Your task to perform on an android device: turn off picture-in-picture Image 0: 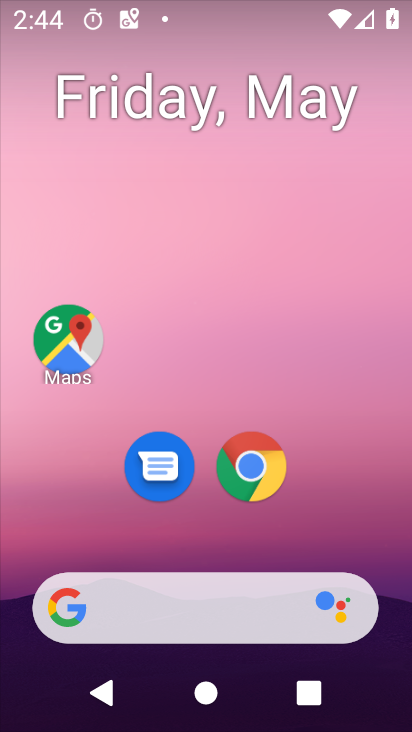
Step 0: click (252, 470)
Your task to perform on an android device: turn off picture-in-picture Image 1: 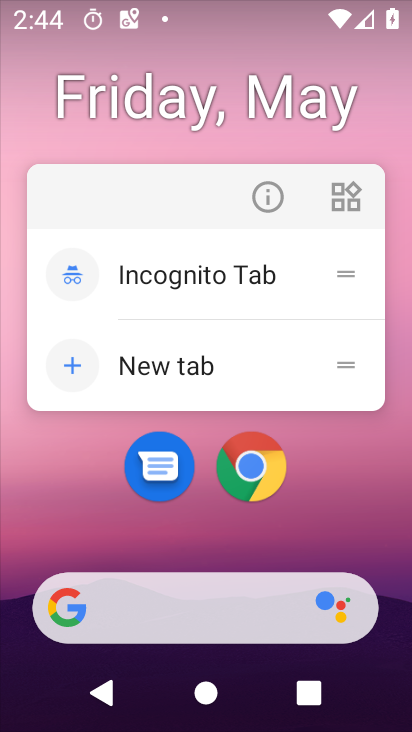
Step 1: click (275, 198)
Your task to perform on an android device: turn off picture-in-picture Image 2: 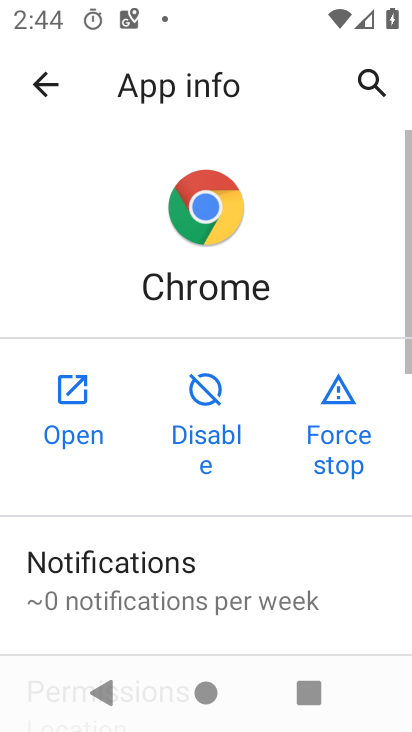
Step 2: drag from (183, 547) to (276, 99)
Your task to perform on an android device: turn off picture-in-picture Image 3: 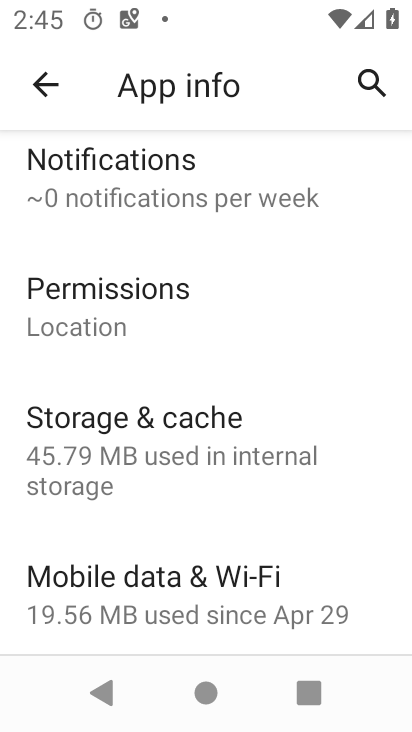
Step 3: drag from (236, 614) to (303, 173)
Your task to perform on an android device: turn off picture-in-picture Image 4: 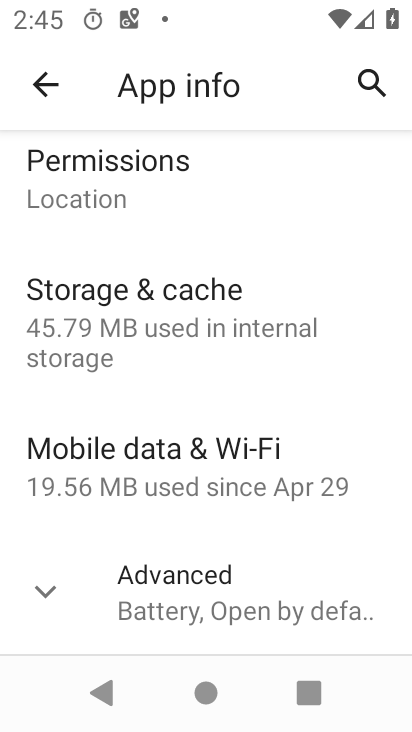
Step 4: drag from (238, 416) to (270, 198)
Your task to perform on an android device: turn off picture-in-picture Image 5: 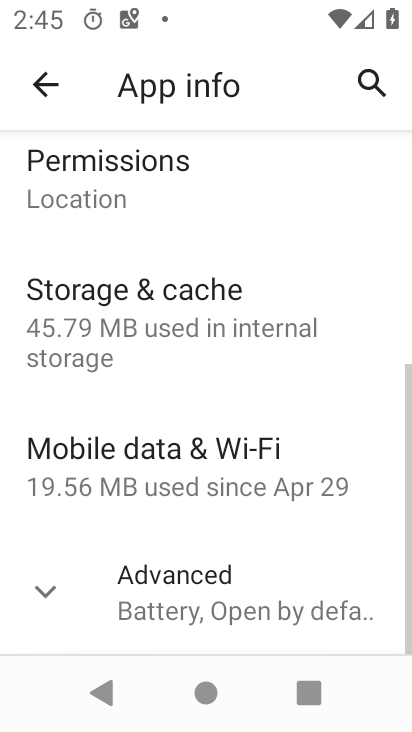
Step 5: click (167, 588)
Your task to perform on an android device: turn off picture-in-picture Image 6: 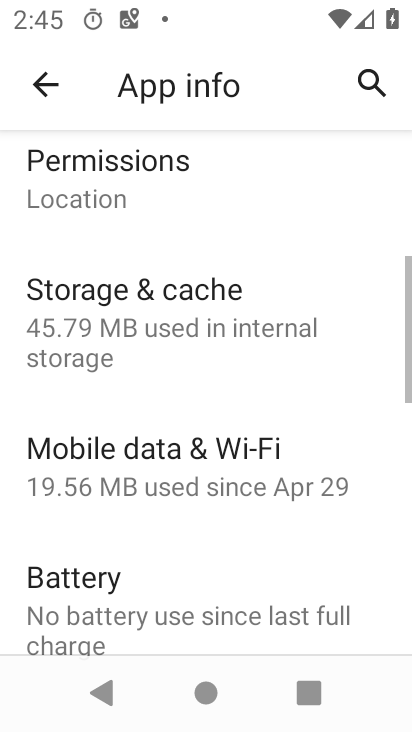
Step 6: drag from (170, 577) to (279, 106)
Your task to perform on an android device: turn off picture-in-picture Image 7: 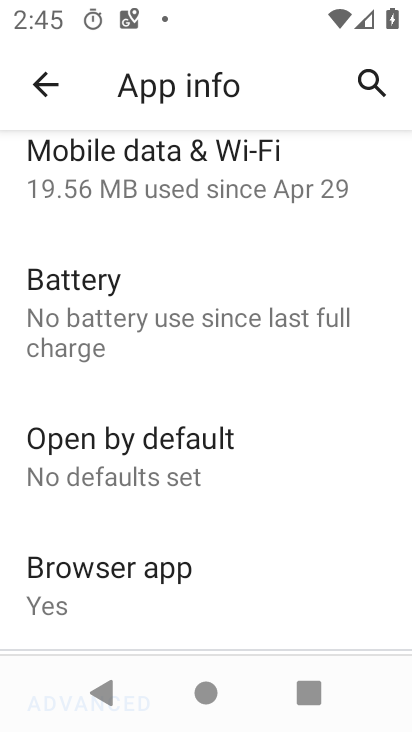
Step 7: drag from (184, 508) to (247, 203)
Your task to perform on an android device: turn off picture-in-picture Image 8: 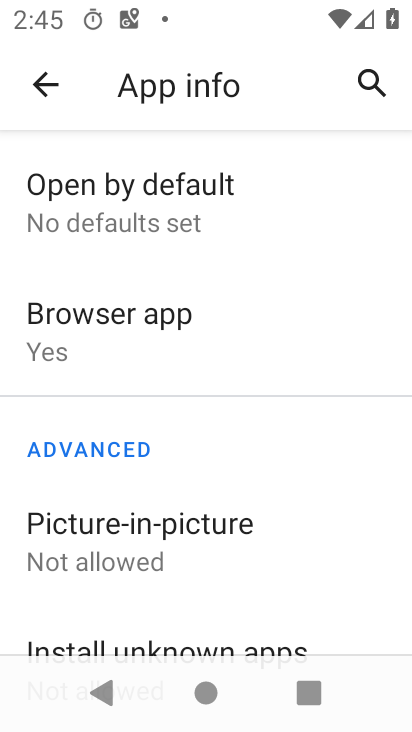
Step 8: click (164, 520)
Your task to perform on an android device: turn off picture-in-picture Image 9: 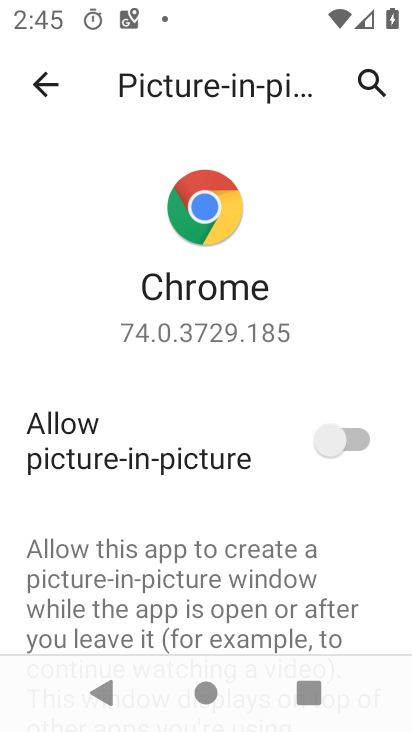
Step 9: task complete